Your task to perform on an android device: open a new tab in the chrome app Image 0: 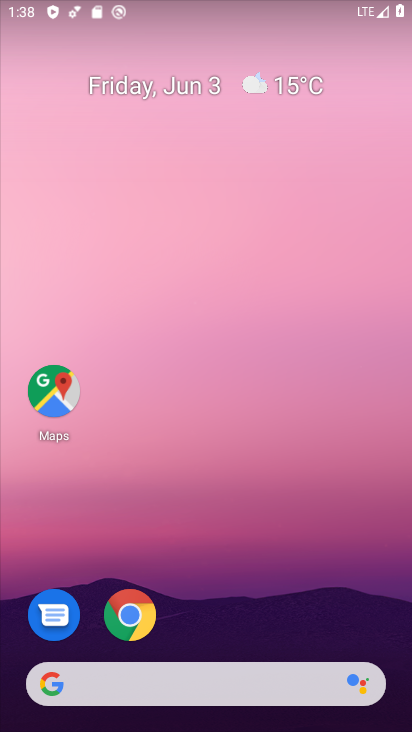
Step 0: click (298, 78)
Your task to perform on an android device: open a new tab in the chrome app Image 1: 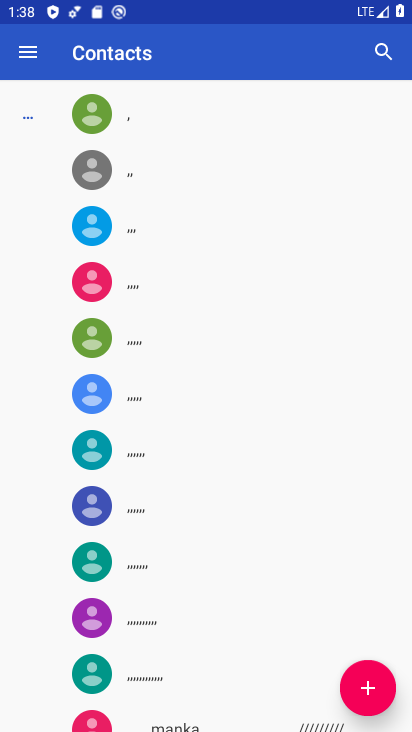
Step 1: press home button
Your task to perform on an android device: open a new tab in the chrome app Image 2: 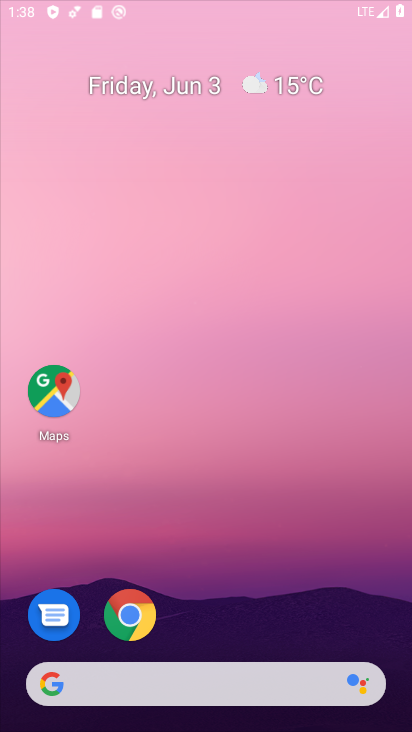
Step 2: drag from (177, 601) to (206, 207)
Your task to perform on an android device: open a new tab in the chrome app Image 3: 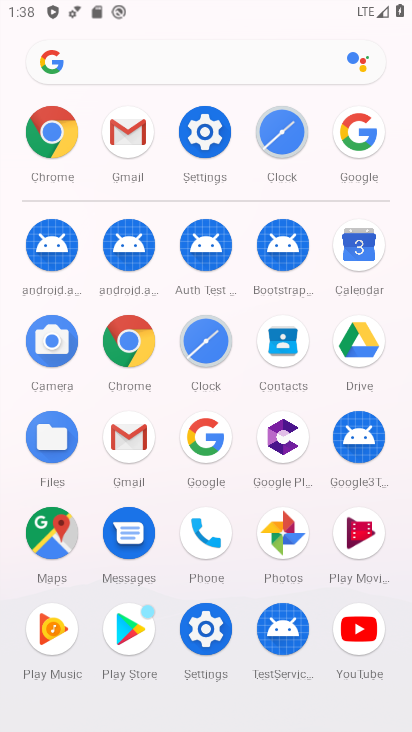
Step 3: click (125, 327)
Your task to perform on an android device: open a new tab in the chrome app Image 4: 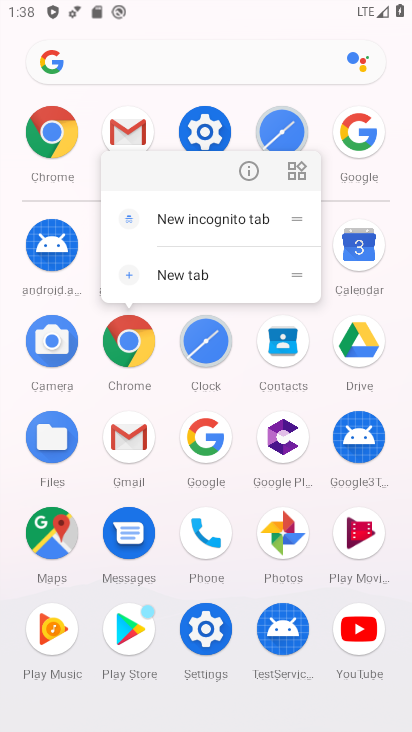
Step 4: click (249, 179)
Your task to perform on an android device: open a new tab in the chrome app Image 5: 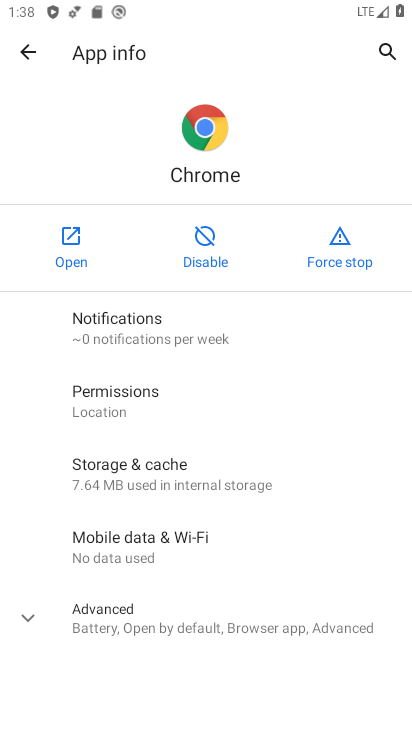
Step 5: click (68, 265)
Your task to perform on an android device: open a new tab in the chrome app Image 6: 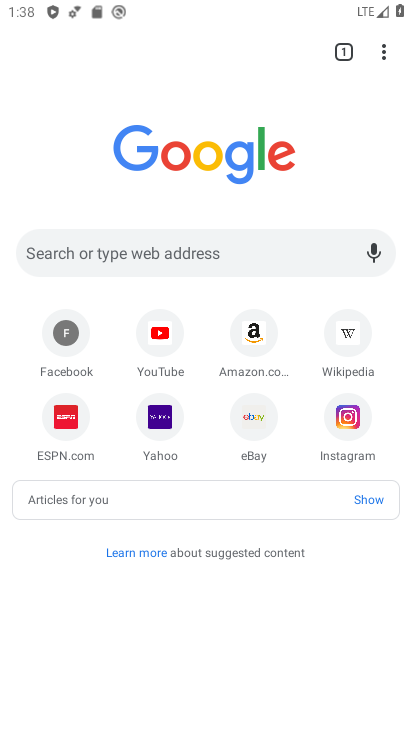
Step 6: drag from (375, 57) to (244, 110)
Your task to perform on an android device: open a new tab in the chrome app Image 7: 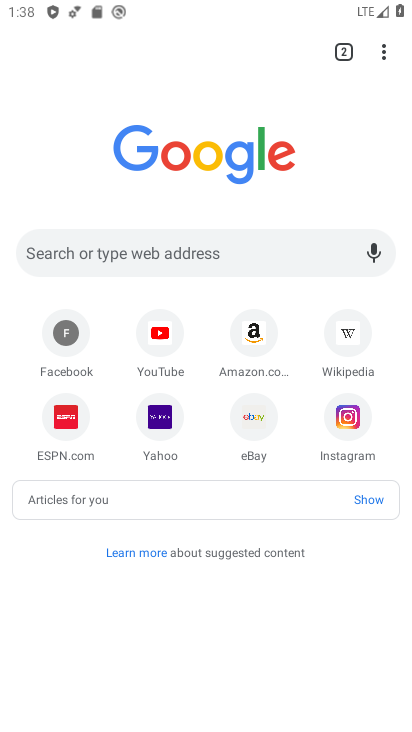
Step 7: drag from (203, 516) to (262, 138)
Your task to perform on an android device: open a new tab in the chrome app Image 8: 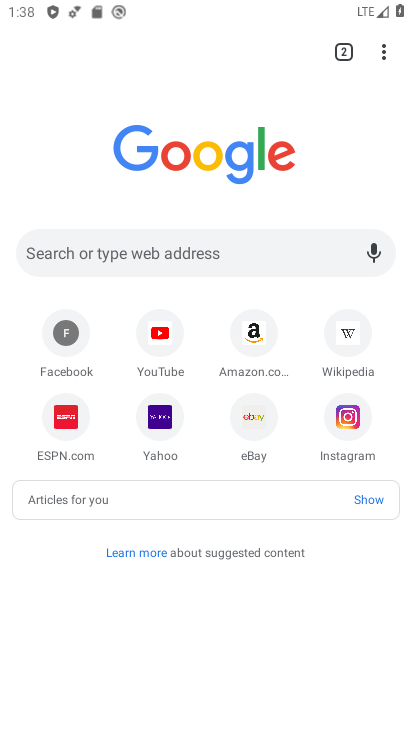
Step 8: drag from (224, 530) to (237, 218)
Your task to perform on an android device: open a new tab in the chrome app Image 9: 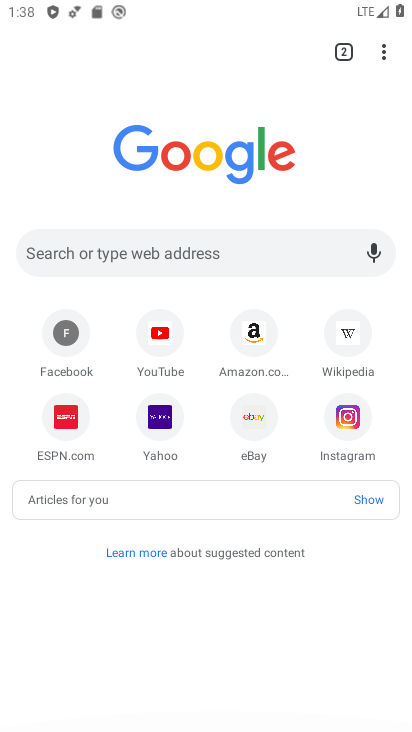
Step 9: drag from (261, 54) to (323, 561)
Your task to perform on an android device: open a new tab in the chrome app Image 10: 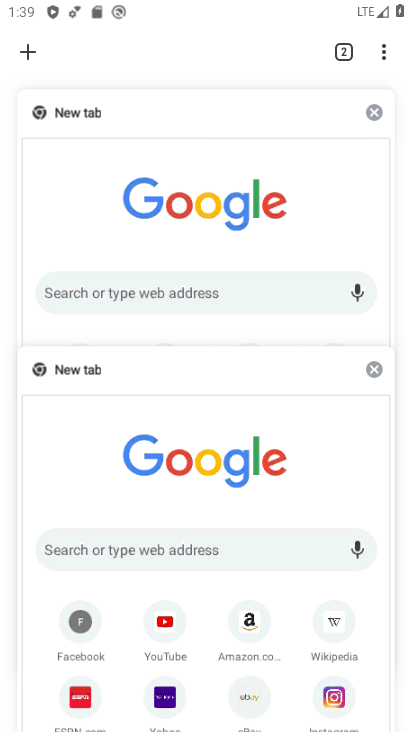
Step 10: click (269, 202)
Your task to perform on an android device: open a new tab in the chrome app Image 11: 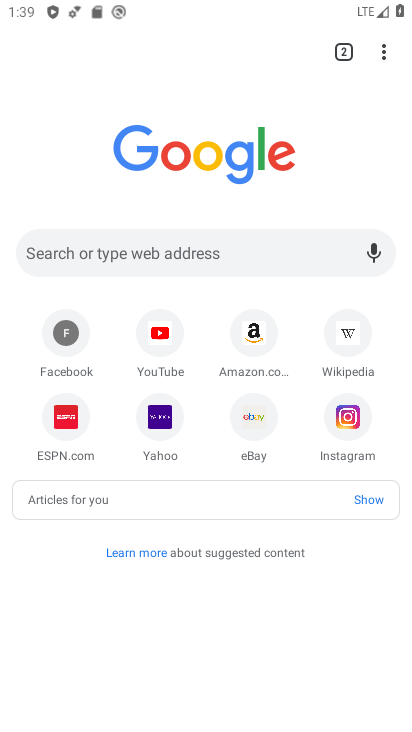
Step 11: task complete